Your task to perform on an android device: Go to wifi settings Image 0: 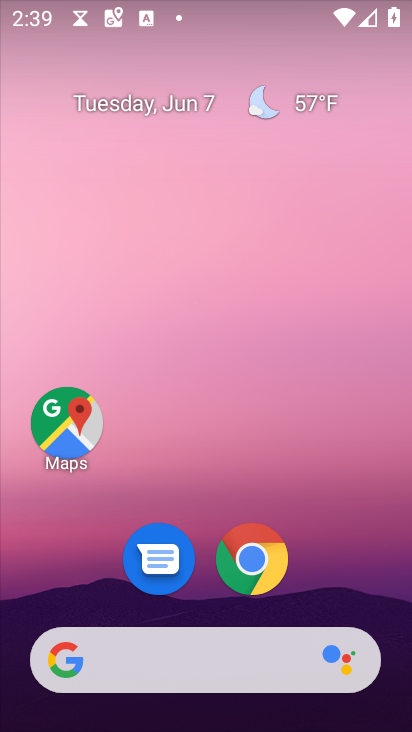
Step 0: drag from (243, 31) to (173, 369)
Your task to perform on an android device: Go to wifi settings Image 1: 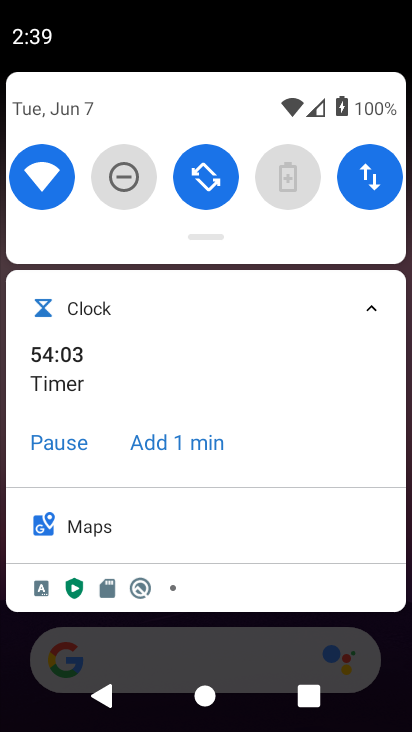
Step 1: click (34, 184)
Your task to perform on an android device: Go to wifi settings Image 2: 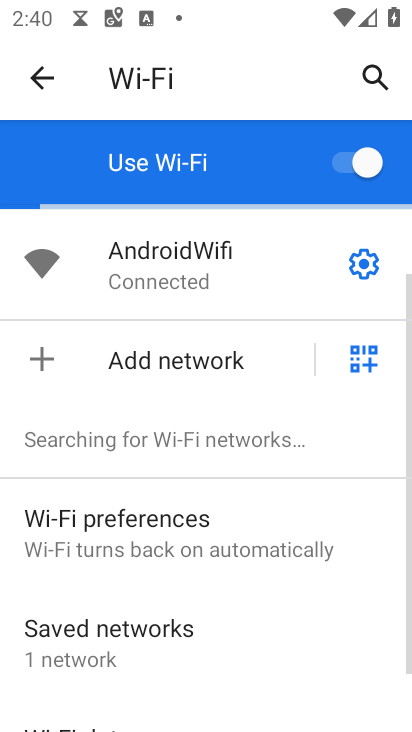
Step 2: click (369, 263)
Your task to perform on an android device: Go to wifi settings Image 3: 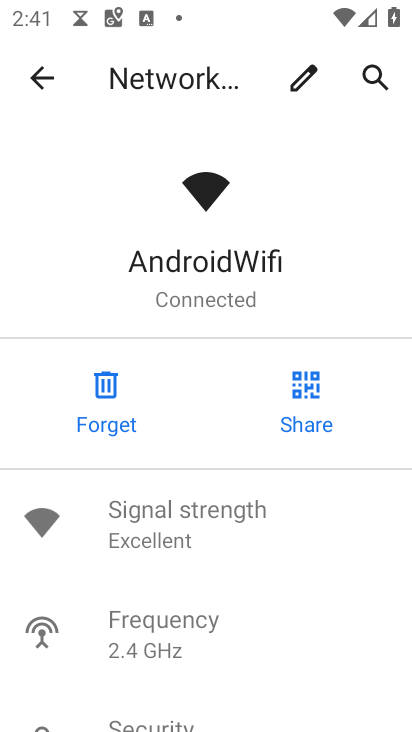
Step 3: task complete